Your task to perform on an android device: Search for pizza restaurants on Maps Image 0: 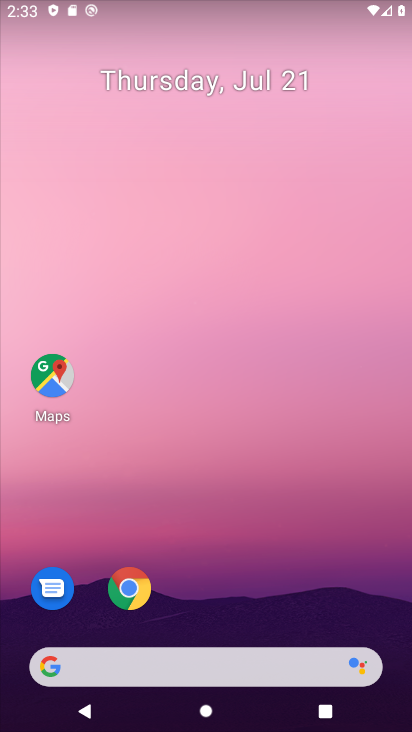
Step 0: drag from (239, 603) to (256, 42)
Your task to perform on an android device: Search for pizza restaurants on Maps Image 1: 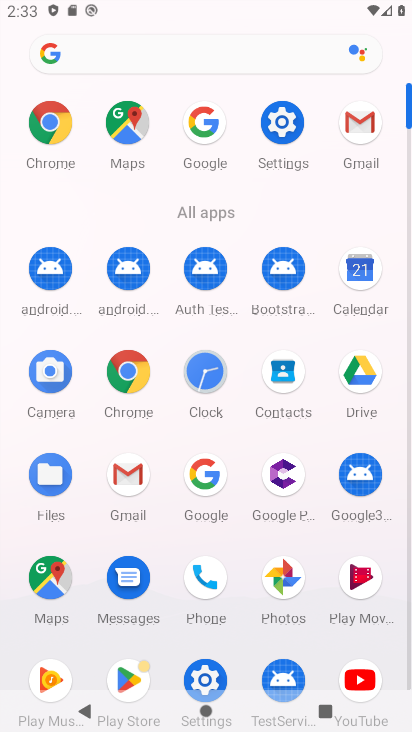
Step 1: click (48, 580)
Your task to perform on an android device: Search for pizza restaurants on Maps Image 2: 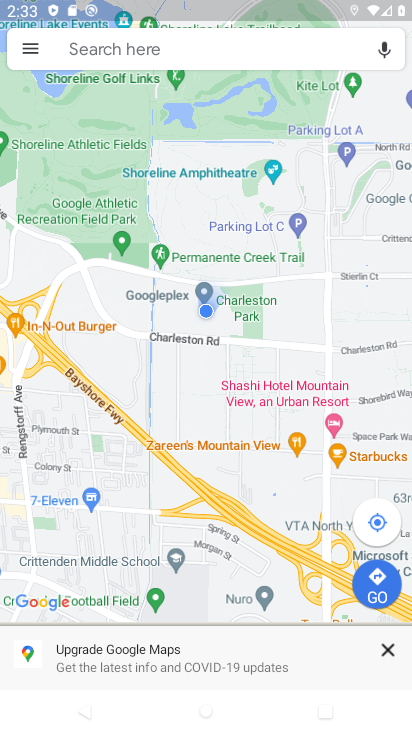
Step 2: click (173, 66)
Your task to perform on an android device: Search for pizza restaurants on Maps Image 3: 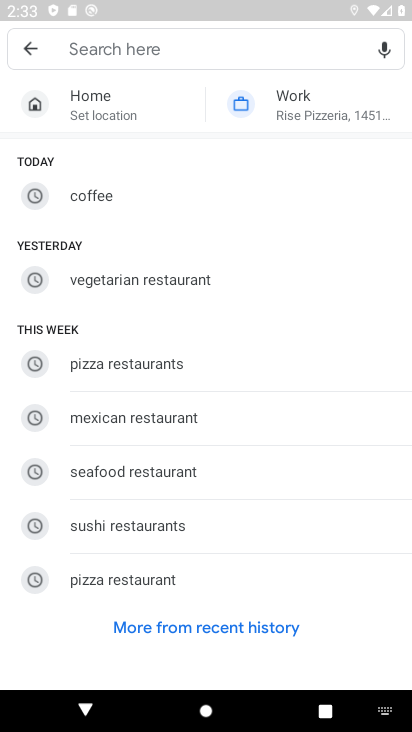
Step 3: click (119, 373)
Your task to perform on an android device: Search for pizza restaurants on Maps Image 4: 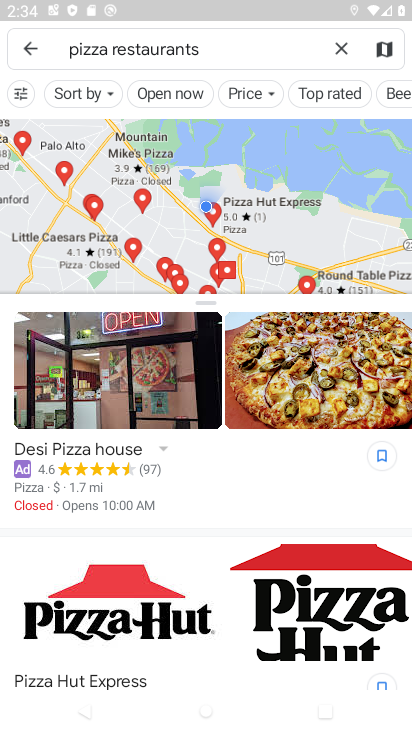
Step 4: task complete